Your task to perform on an android device: Go to settings Image 0: 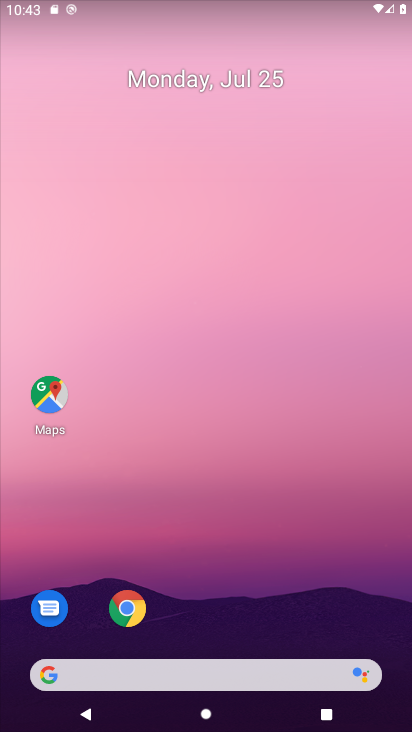
Step 0: drag from (211, 679) to (190, 236)
Your task to perform on an android device: Go to settings Image 1: 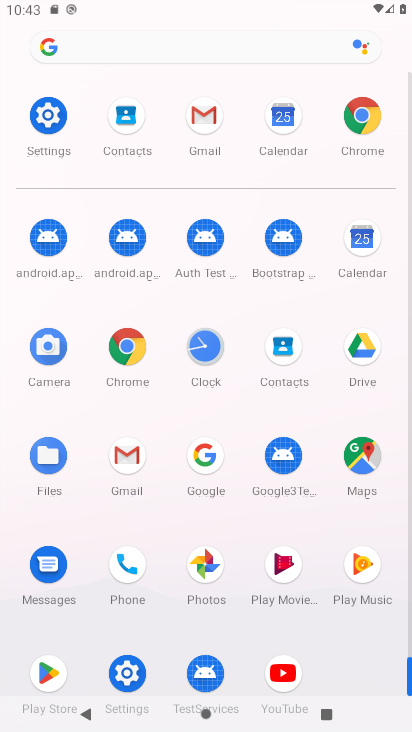
Step 1: click (51, 124)
Your task to perform on an android device: Go to settings Image 2: 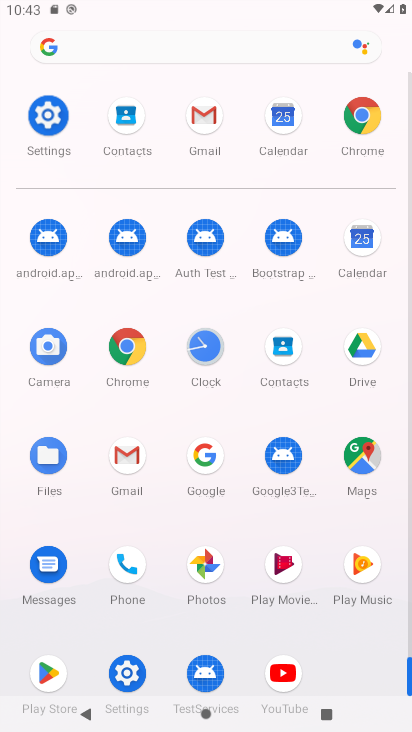
Step 2: click (51, 124)
Your task to perform on an android device: Go to settings Image 3: 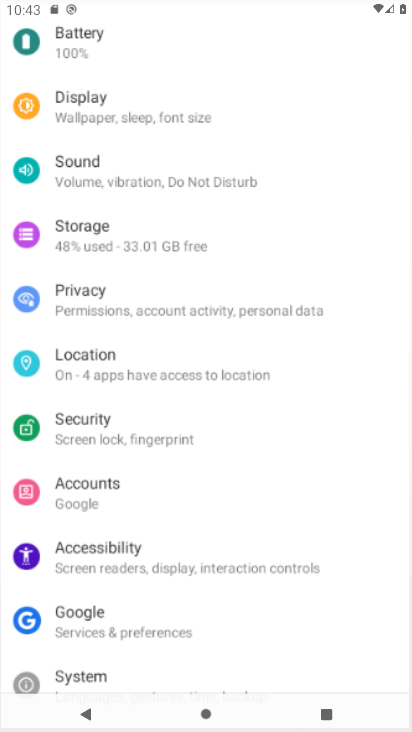
Step 3: click (52, 125)
Your task to perform on an android device: Go to settings Image 4: 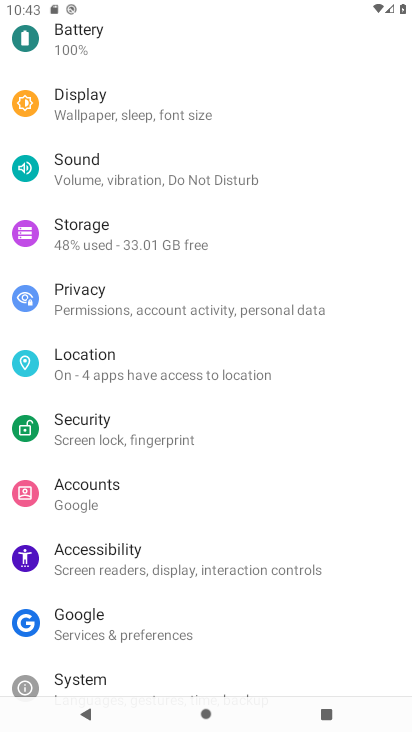
Step 4: task complete